Your task to perform on an android device: turn on airplane mode Image 0: 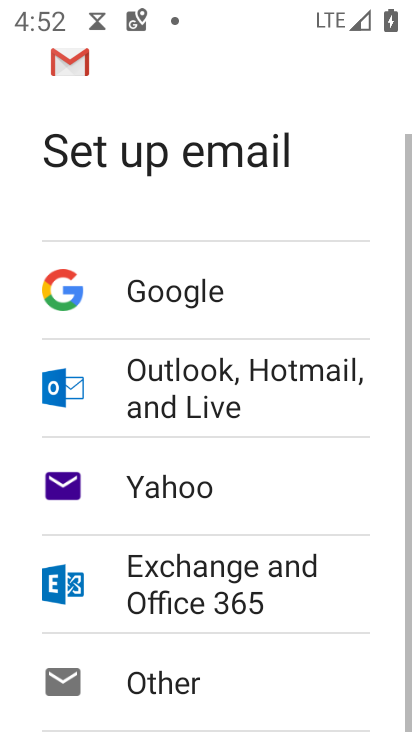
Step 0: press home button
Your task to perform on an android device: turn on airplane mode Image 1: 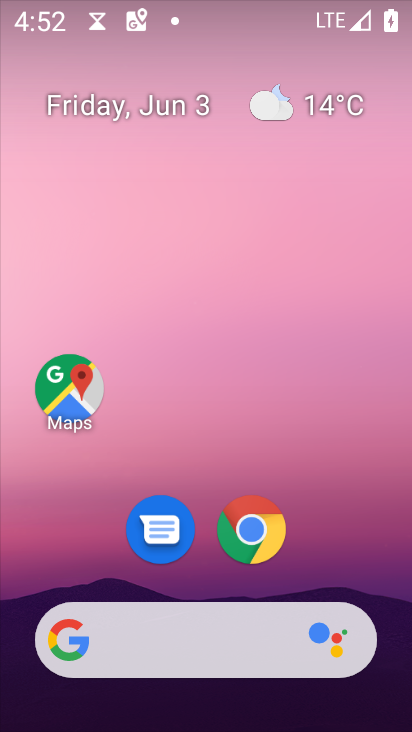
Step 1: drag from (359, 353) to (370, 8)
Your task to perform on an android device: turn on airplane mode Image 2: 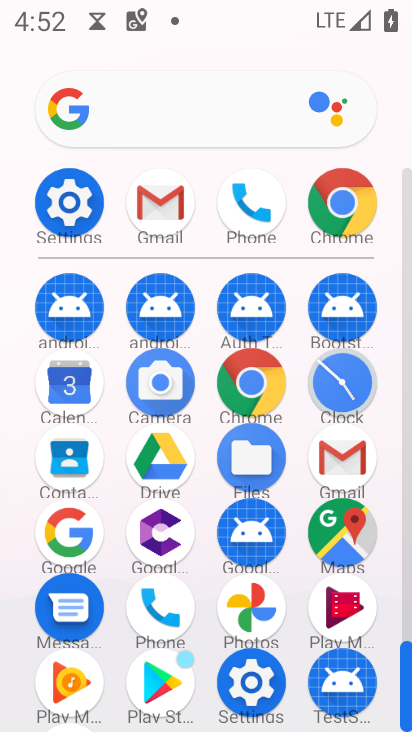
Step 2: click (61, 222)
Your task to perform on an android device: turn on airplane mode Image 3: 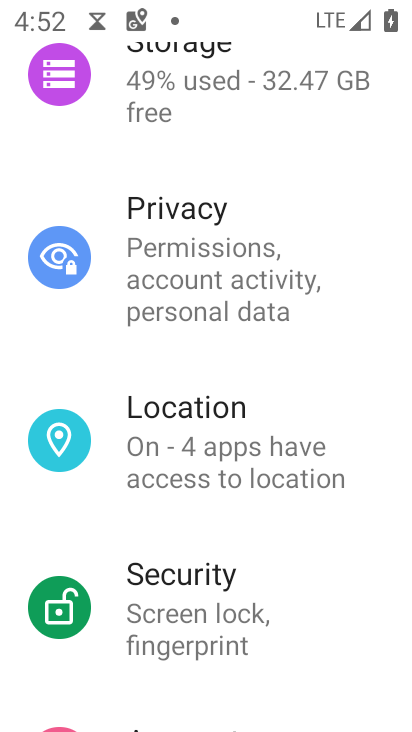
Step 3: drag from (231, 261) to (275, 674)
Your task to perform on an android device: turn on airplane mode Image 4: 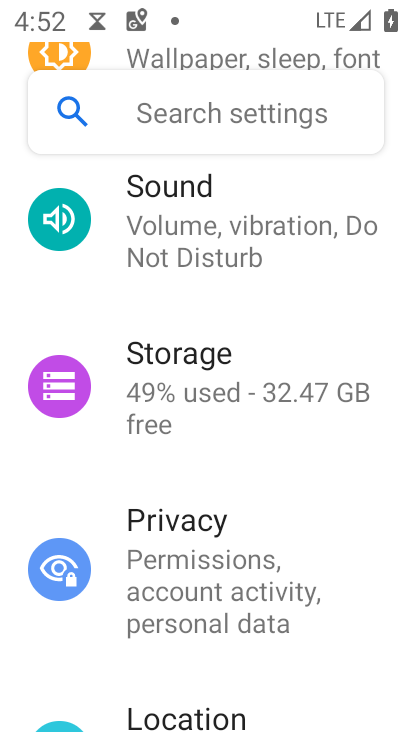
Step 4: drag from (265, 199) to (278, 685)
Your task to perform on an android device: turn on airplane mode Image 5: 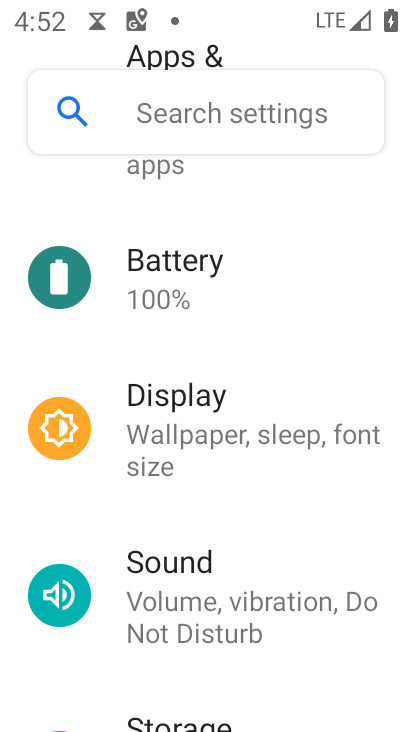
Step 5: drag from (265, 207) to (277, 708)
Your task to perform on an android device: turn on airplane mode Image 6: 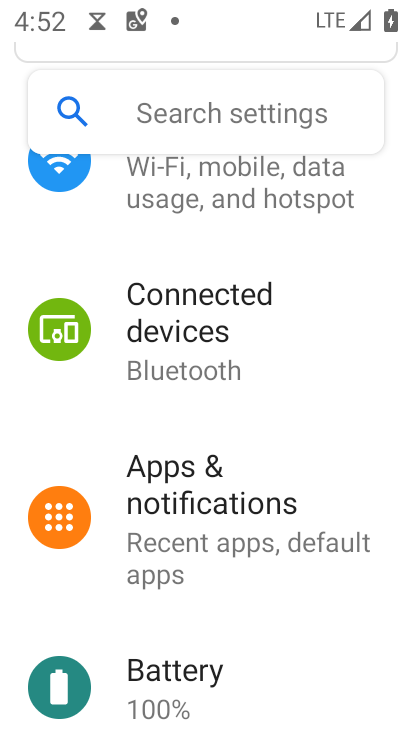
Step 6: drag from (201, 200) to (234, 620)
Your task to perform on an android device: turn on airplane mode Image 7: 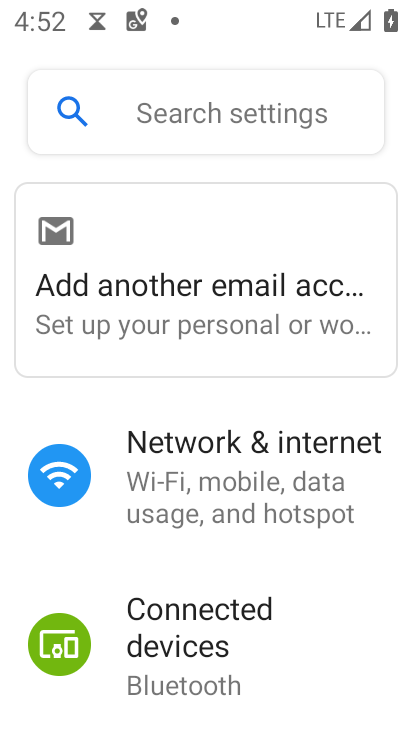
Step 7: click (276, 472)
Your task to perform on an android device: turn on airplane mode Image 8: 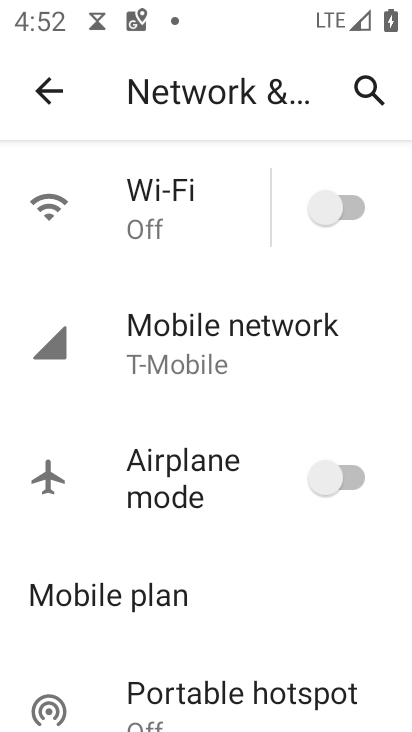
Step 8: click (325, 493)
Your task to perform on an android device: turn on airplane mode Image 9: 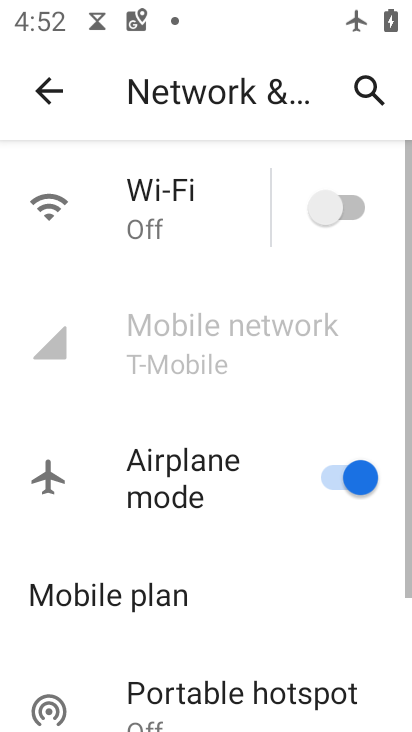
Step 9: task complete